Your task to perform on an android device: change notifications settings Image 0: 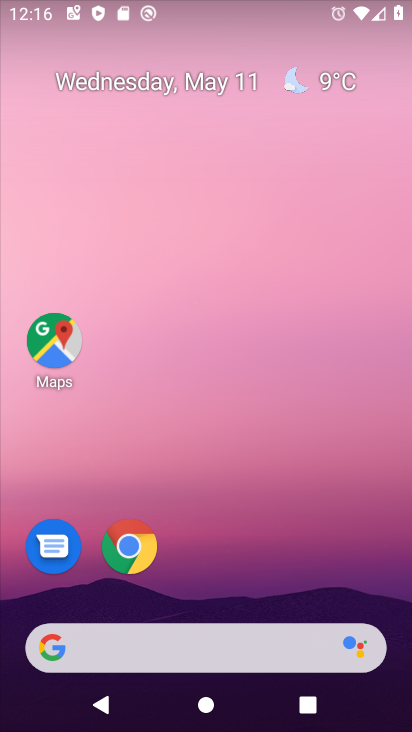
Step 0: drag from (174, 616) to (238, 202)
Your task to perform on an android device: change notifications settings Image 1: 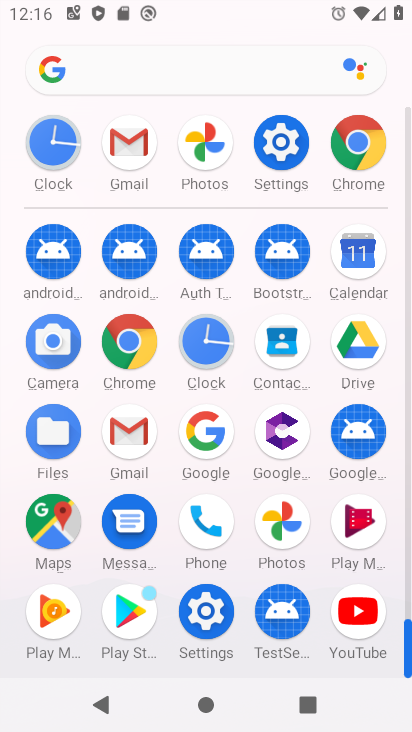
Step 1: click (283, 151)
Your task to perform on an android device: change notifications settings Image 2: 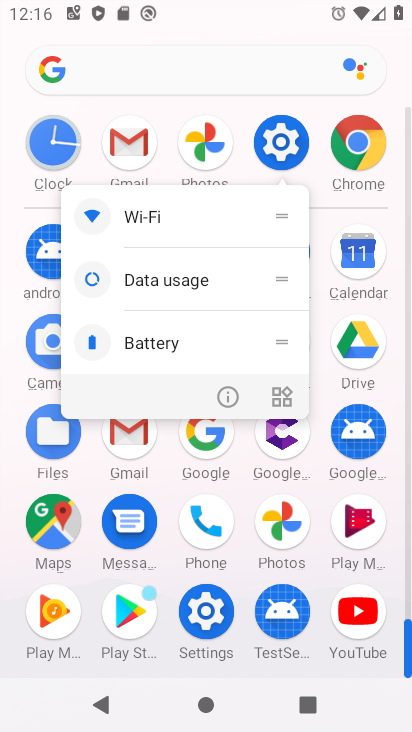
Step 2: click (222, 403)
Your task to perform on an android device: change notifications settings Image 3: 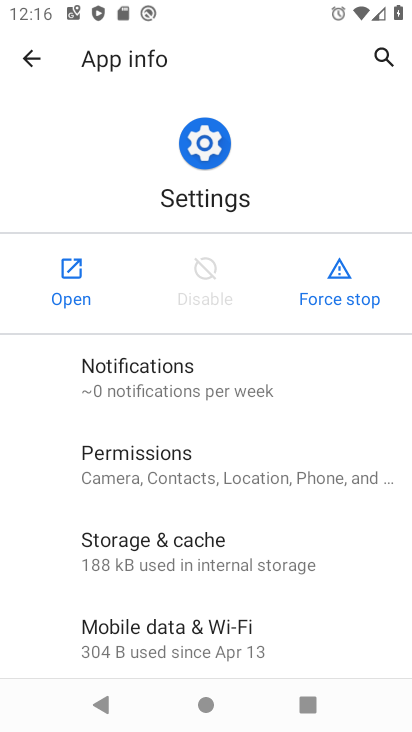
Step 3: click (80, 270)
Your task to perform on an android device: change notifications settings Image 4: 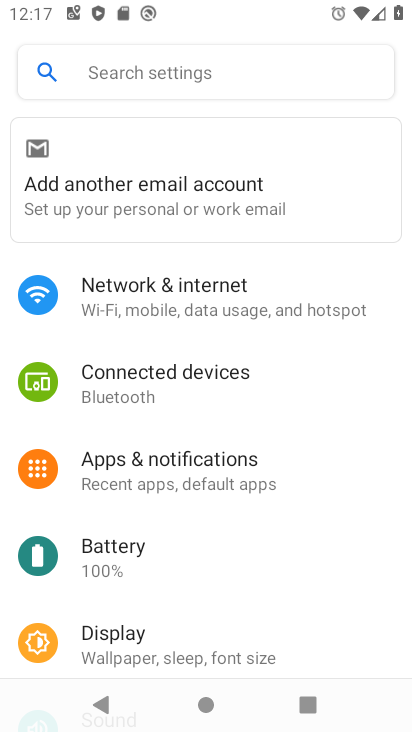
Step 4: click (196, 477)
Your task to perform on an android device: change notifications settings Image 5: 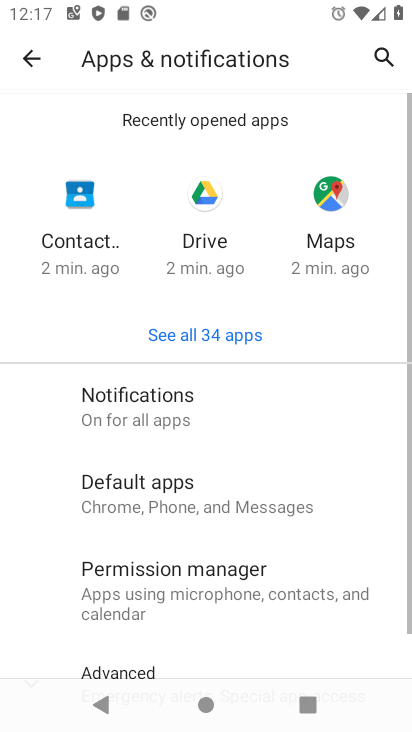
Step 5: click (239, 399)
Your task to perform on an android device: change notifications settings Image 6: 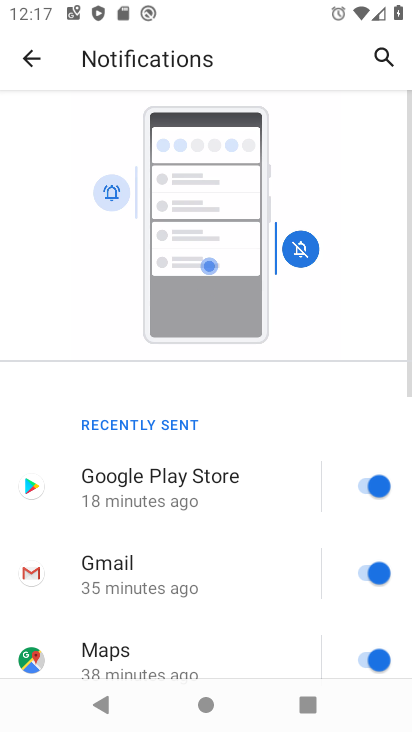
Step 6: drag from (245, 579) to (340, 163)
Your task to perform on an android device: change notifications settings Image 7: 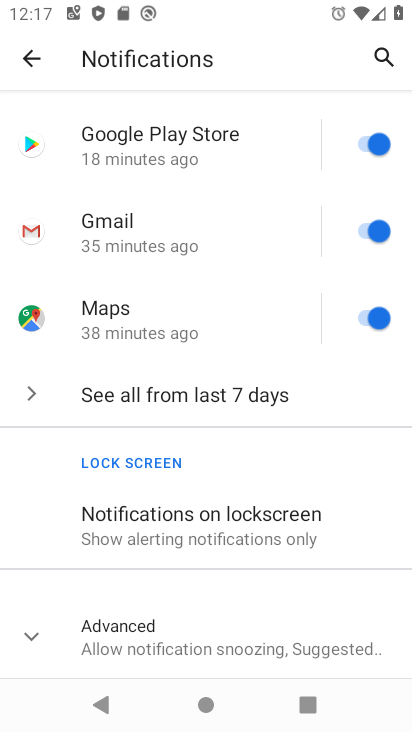
Step 7: drag from (233, 588) to (306, 204)
Your task to perform on an android device: change notifications settings Image 8: 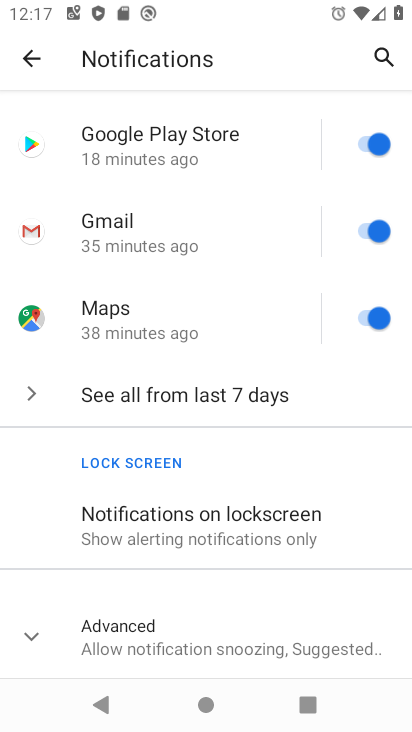
Step 8: click (164, 629)
Your task to perform on an android device: change notifications settings Image 9: 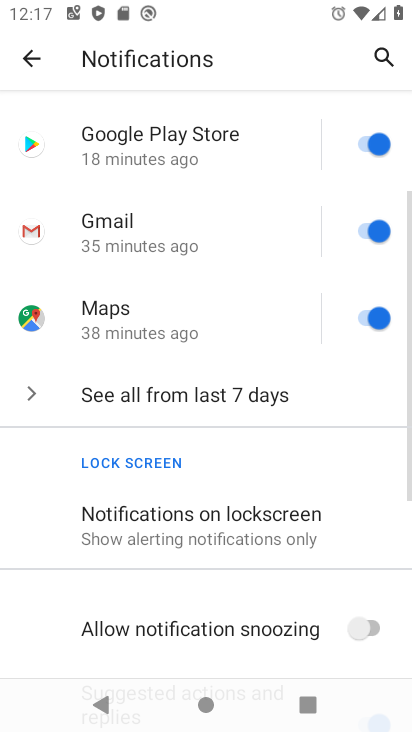
Step 9: click (375, 324)
Your task to perform on an android device: change notifications settings Image 10: 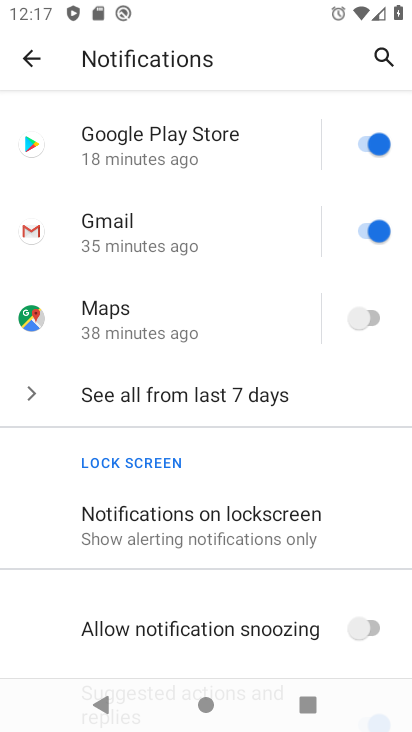
Step 10: task complete